Your task to perform on an android device: change notifications settings Image 0: 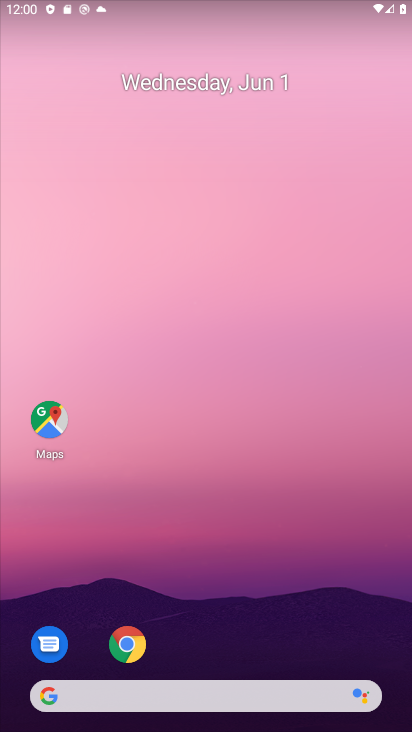
Step 0: drag from (215, 613) to (327, 234)
Your task to perform on an android device: change notifications settings Image 1: 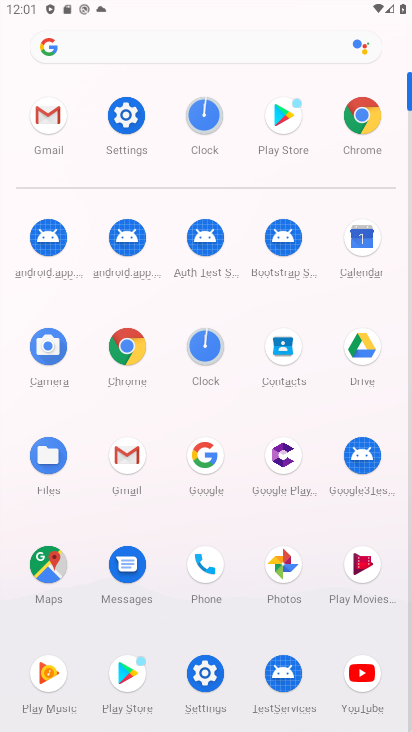
Step 1: click (218, 674)
Your task to perform on an android device: change notifications settings Image 2: 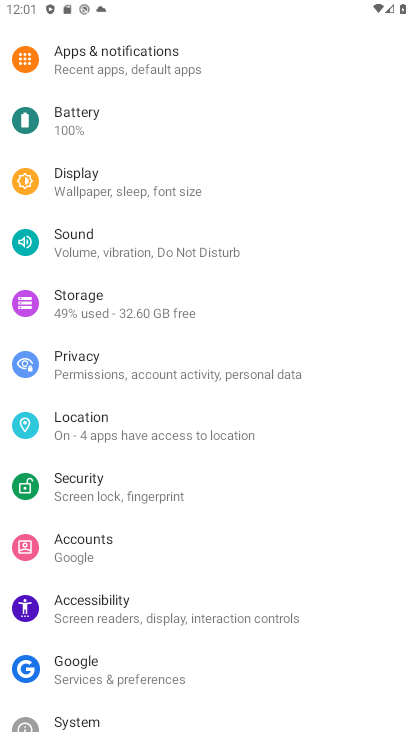
Step 2: click (163, 78)
Your task to perform on an android device: change notifications settings Image 3: 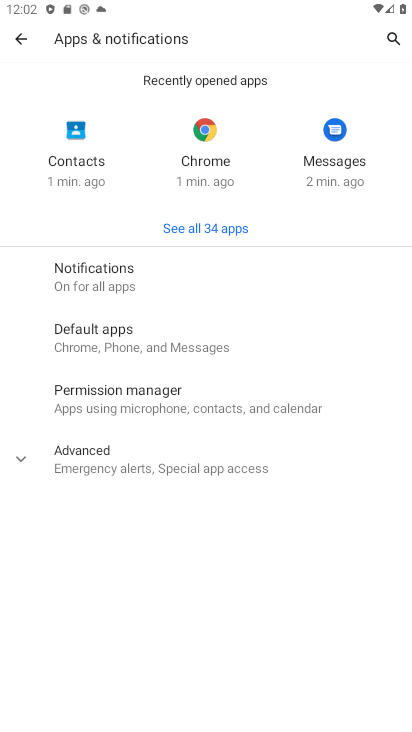
Step 3: click (182, 285)
Your task to perform on an android device: change notifications settings Image 4: 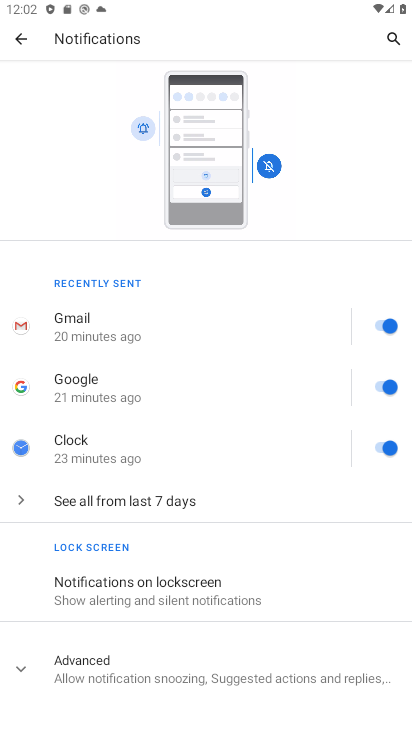
Step 4: task complete